Your task to perform on an android device: Open the calendar and show me this week's events Image 0: 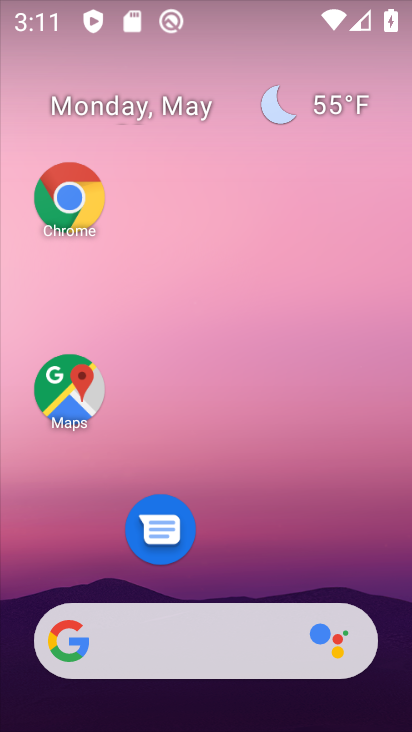
Step 0: drag from (359, 609) to (325, 309)
Your task to perform on an android device: Open the calendar and show me this week's events Image 1: 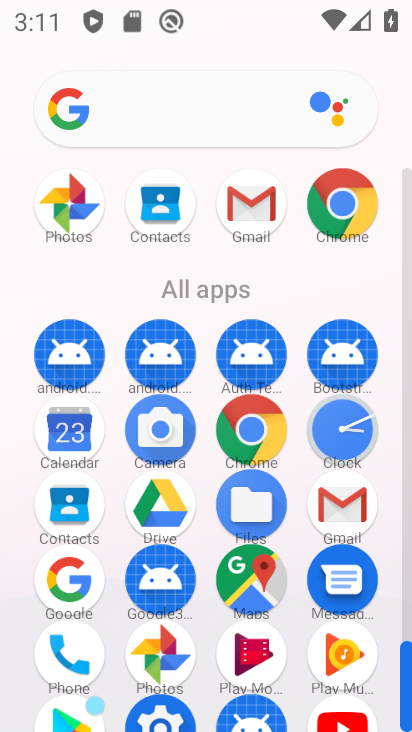
Step 1: click (47, 444)
Your task to perform on an android device: Open the calendar and show me this week's events Image 2: 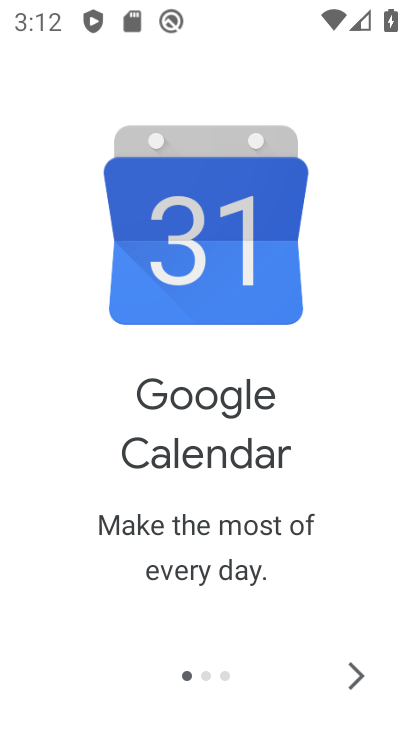
Step 2: click (370, 679)
Your task to perform on an android device: Open the calendar and show me this week's events Image 3: 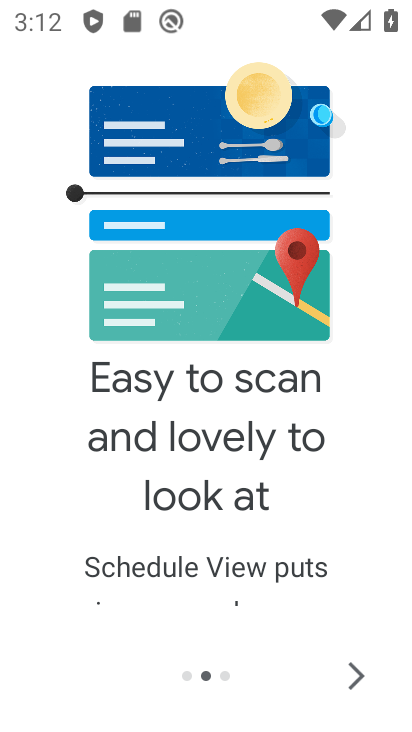
Step 3: click (361, 682)
Your task to perform on an android device: Open the calendar and show me this week's events Image 4: 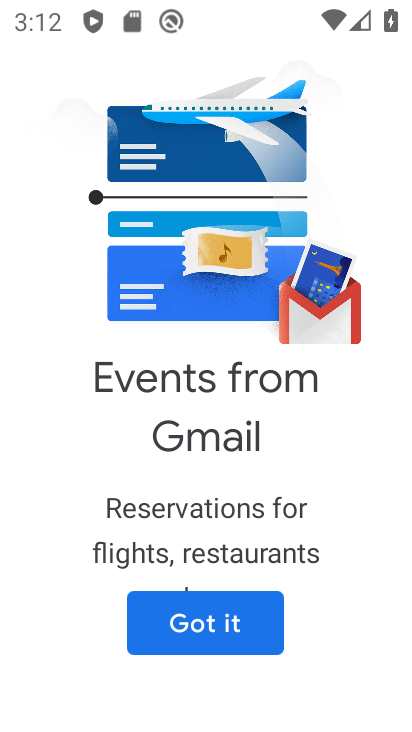
Step 4: click (240, 644)
Your task to perform on an android device: Open the calendar and show me this week's events Image 5: 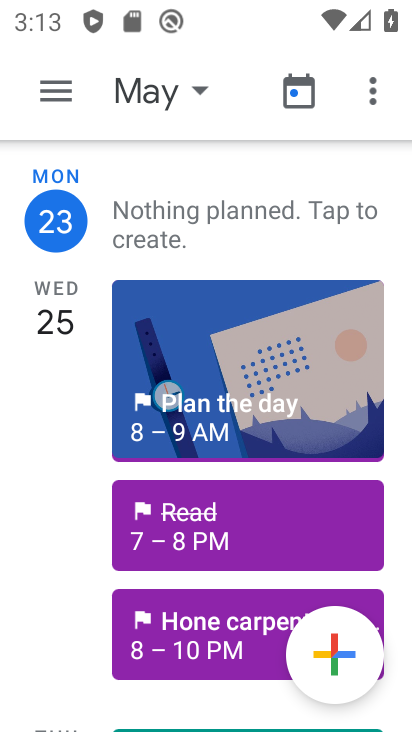
Step 5: click (175, 90)
Your task to perform on an android device: Open the calendar and show me this week's events Image 6: 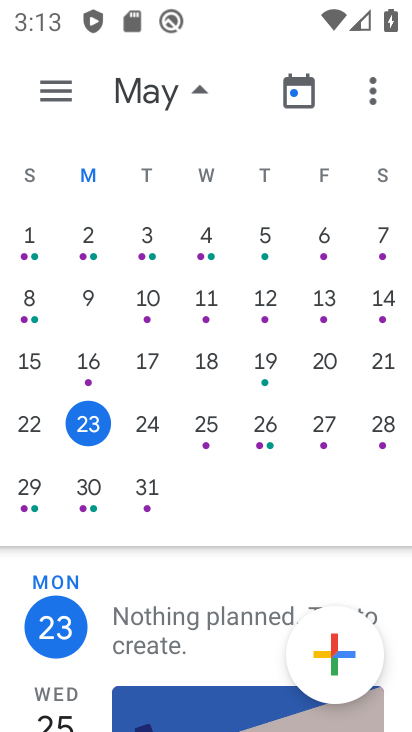
Step 6: click (89, 432)
Your task to perform on an android device: Open the calendar and show me this week's events Image 7: 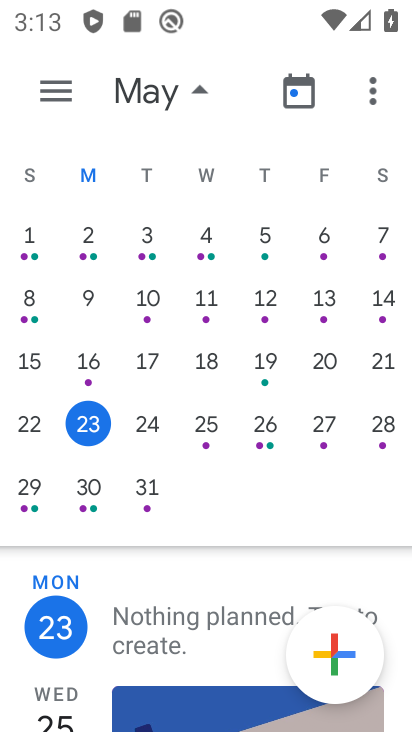
Step 7: task complete